Your task to perform on an android device: Open Chrome and go to settings Image 0: 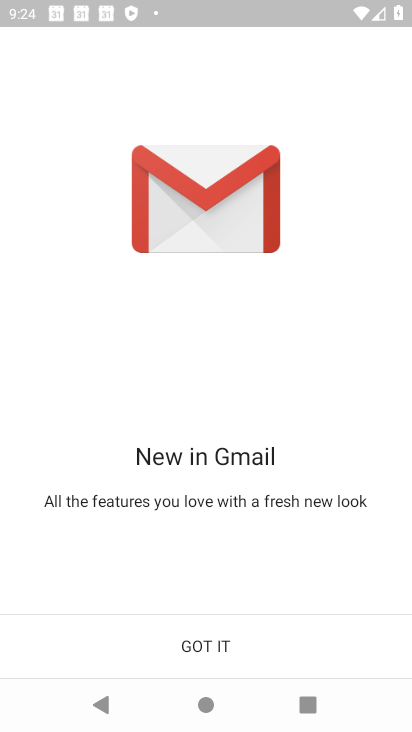
Step 0: click (349, 628)
Your task to perform on an android device: Open Chrome and go to settings Image 1: 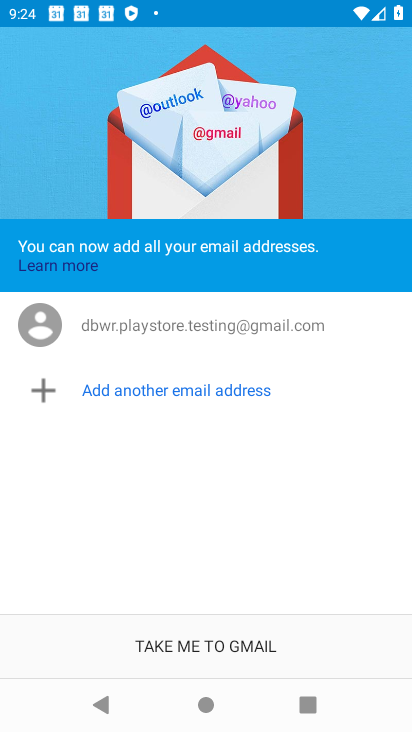
Step 1: click (349, 628)
Your task to perform on an android device: Open Chrome and go to settings Image 2: 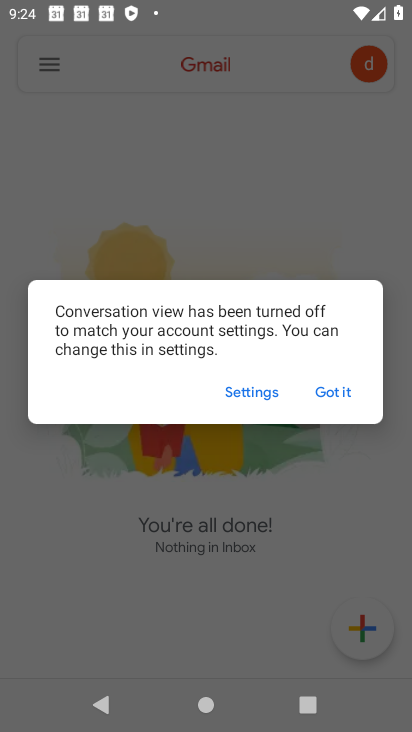
Step 2: click (328, 395)
Your task to perform on an android device: Open Chrome and go to settings Image 3: 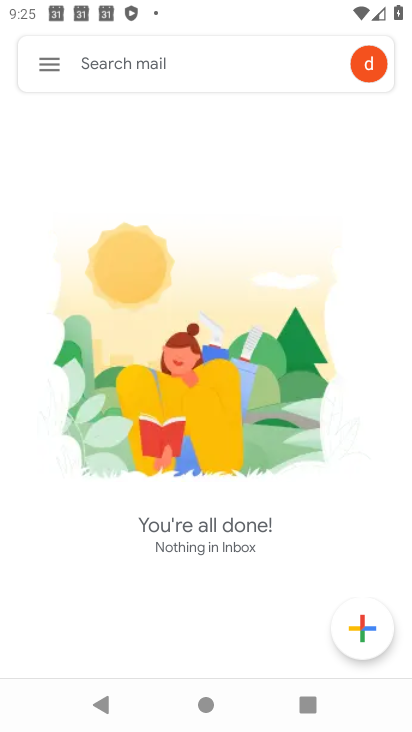
Step 3: click (47, 66)
Your task to perform on an android device: Open Chrome and go to settings Image 4: 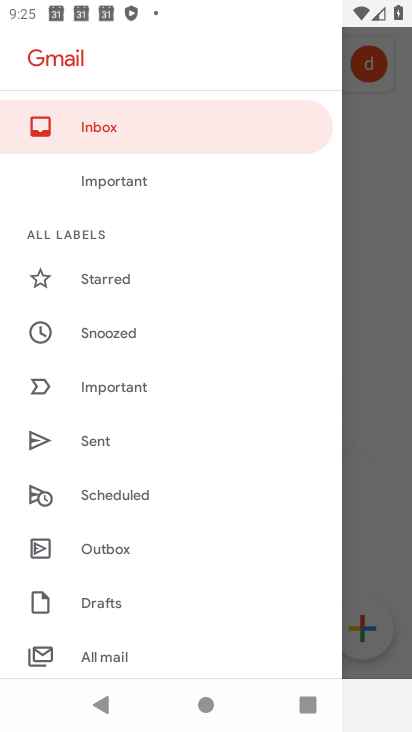
Step 4: press home button
Your task to perform on an android device: Open Chrome and go to settings Image 5: 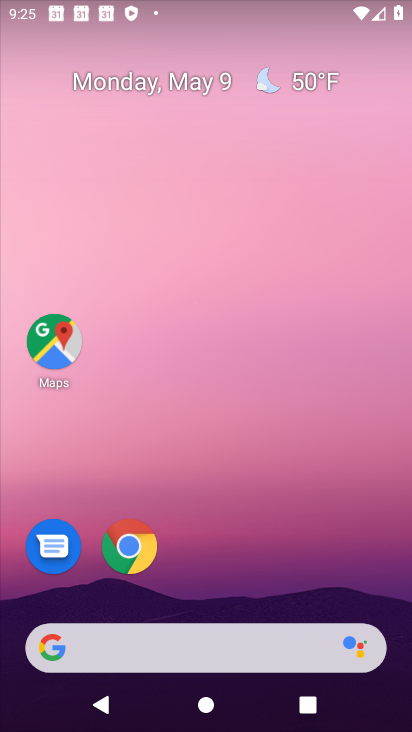
Step 5: click (126, 542)
Your task to perform on an android device: Open Chrome and go to settings Image 6: 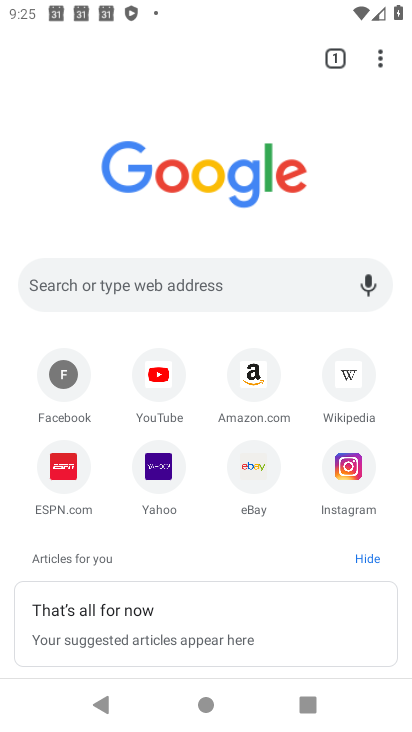
Step 6: task complete